Your task to perform on an android device: turn vacation reply on in the gmail app Image 0: 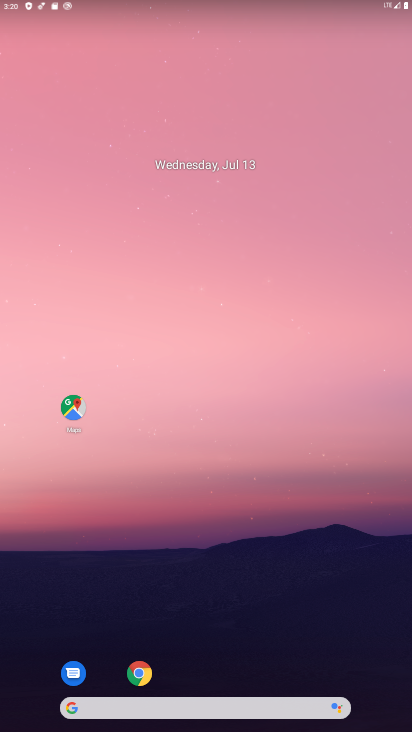
Step 0: drag from (192, 721) to (187, 138)
Your task to perform on an android device: turn vacation reply on in the gmail app Image 1: 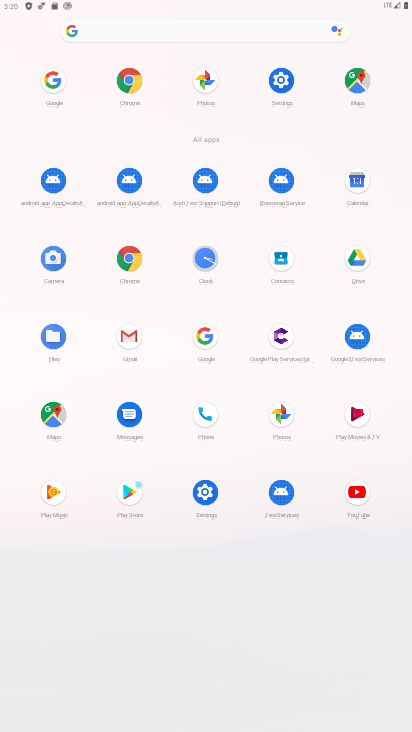
Step 1: click (126, 331)
Your task to perform on an android device: turn vacation reply on in the gmail app Image 2: 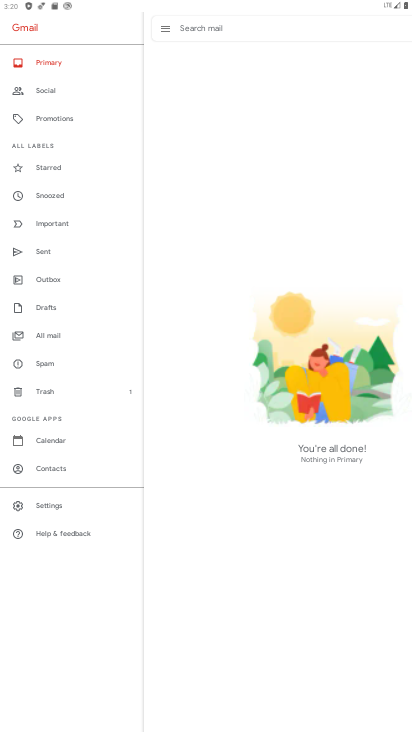
Step 2: click (47, 501)
Your task to perform on an android device: turn vacation reply on in the gmail app Image 3: 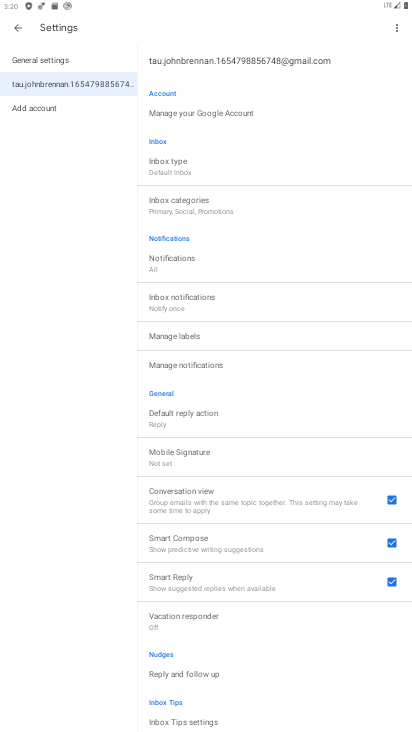
Step 3: drag from (230, 671) to (217, 443)
Your task to perform on an android device: turn vacation reply on in the gmail app Image 4: 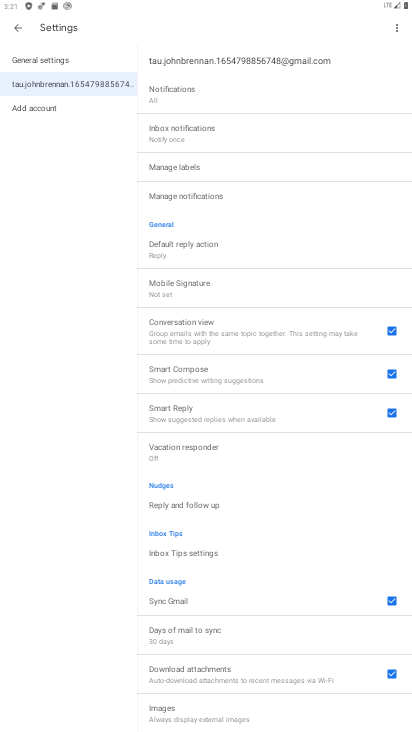
Step 4: click (202, 446)
Your task to perform on an android device: turn vacation reply on in the gmail app Image 5: 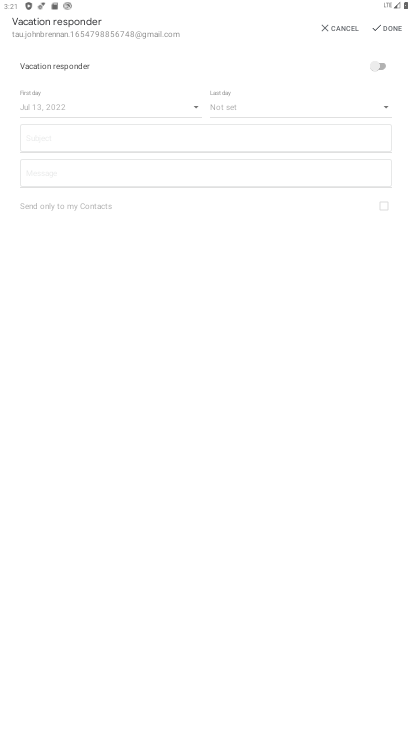
Step 5: click (385, 63)
Your task to perform on an android device: turn vacation reply on in the gmail app Image 6: 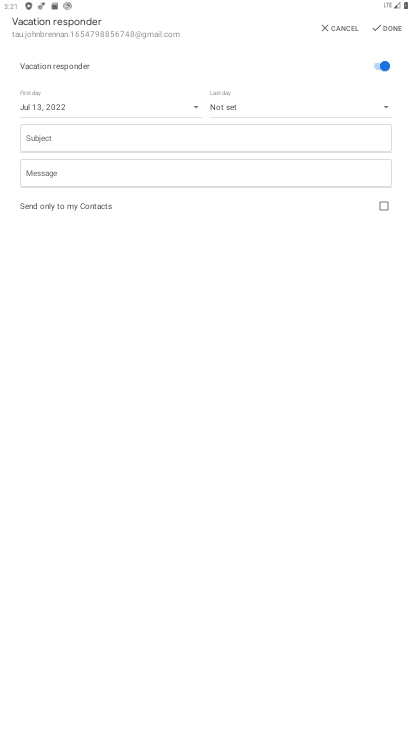
Step 6: task complete